Your task to perform on an android device: add a label to a message in the gmail app Image 0: 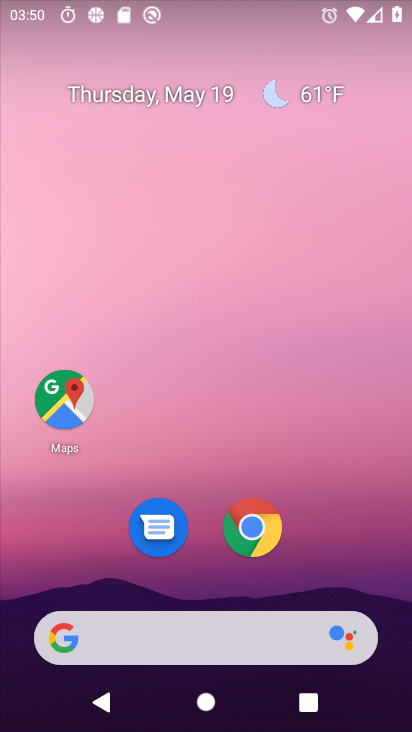
Step 0: drag from (186, 564) to (249, 24)
Your task to perform on an android device: add a label to a message in the gmail app Image 1: 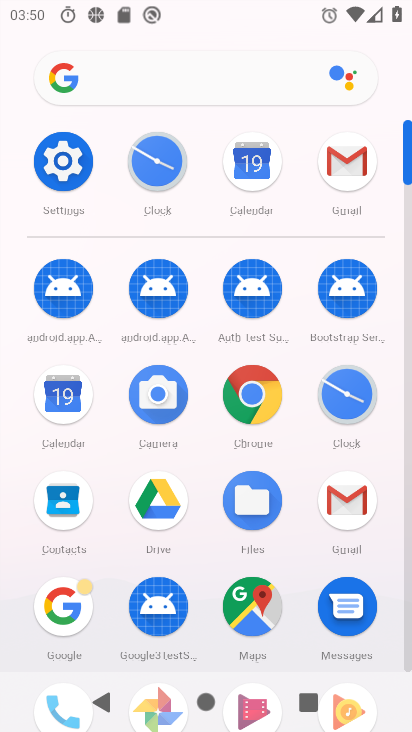
Step 1: click (353, 161)
Your task to perform on an android device: add a label to a message in the gmail app Image 2: 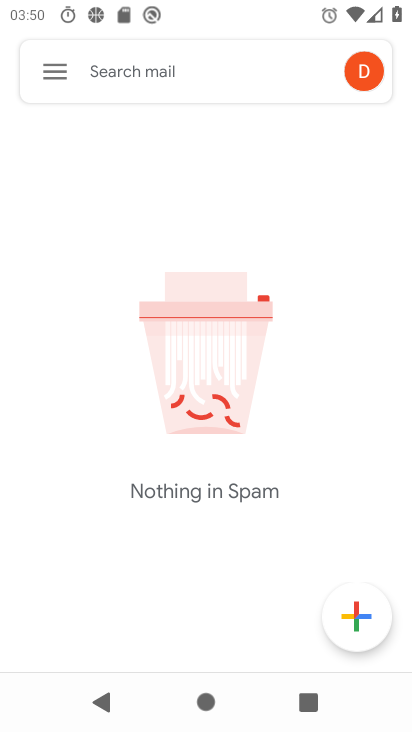
Step 2: click (53, 77)
Your task to perform on an android device: add a label to a message in the gmail app Image 3: 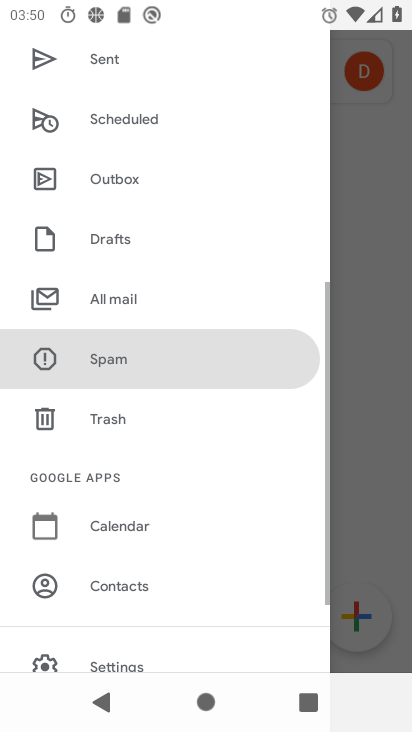
Step 3: click (115, 296)
Your task to perform on an android device: add a label to a message in the gmail app Image 4: 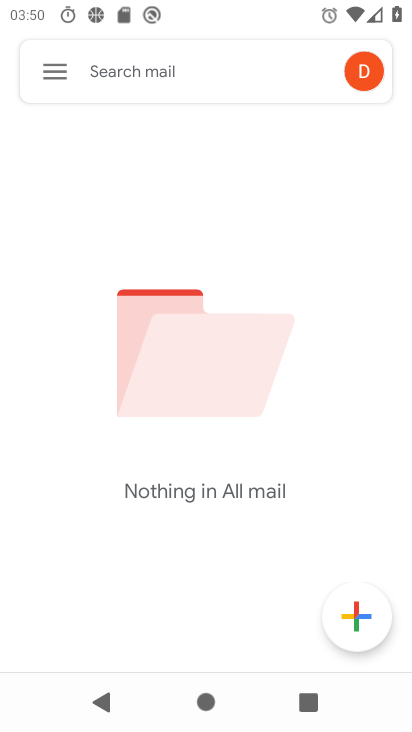
Step 4: task complete